Your task to perform on an android device: turn off improve location accuracy Image 0: 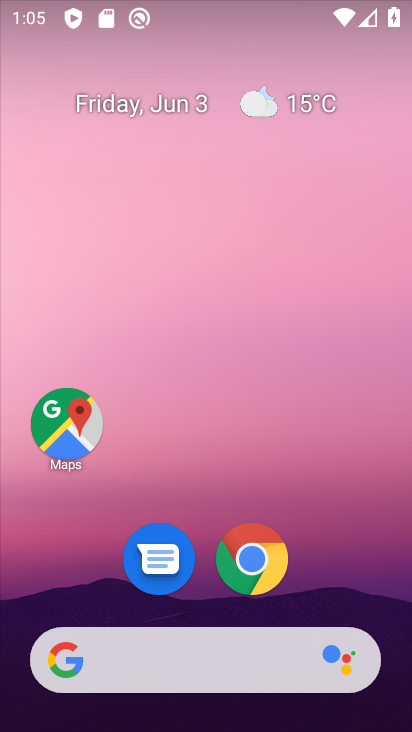
Step 0: drag from (64, 581) to (232, 133)
Your task to perform on an android device: turn off improve location accuracy Image 1: 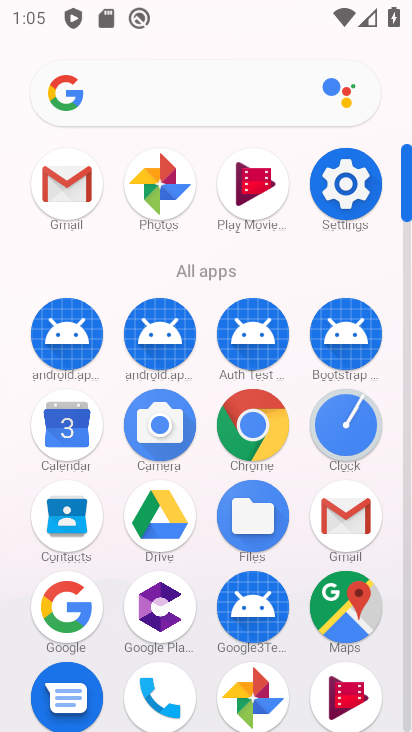
Step 1: drag from (160, 612) to (300, 232)
Your task to perform on an android device: turn off improve location accuracy Image 2: 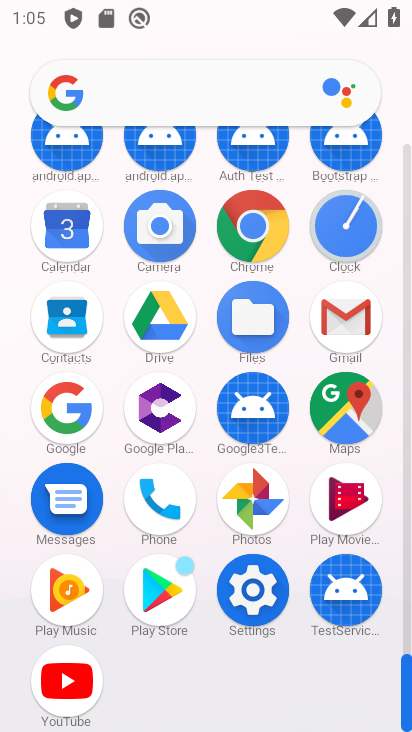
Step 2: click (245, 596)
Your task to perform on an android device: turn off improve location accuracy Image 3: 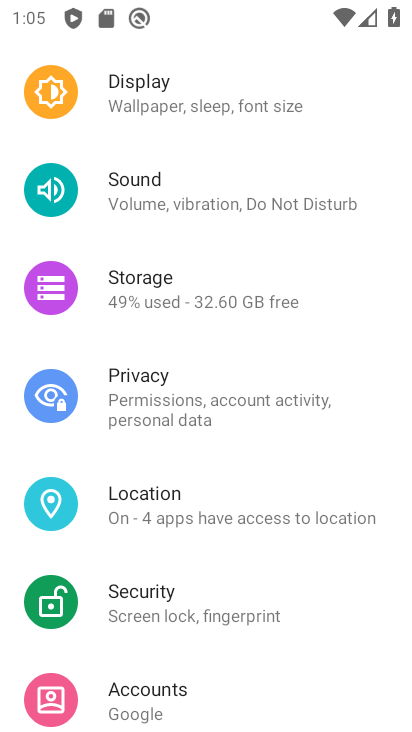
Step 3: click (179, 510)
Your task to perform on an android device: turn off improve location accuracy Image 4: 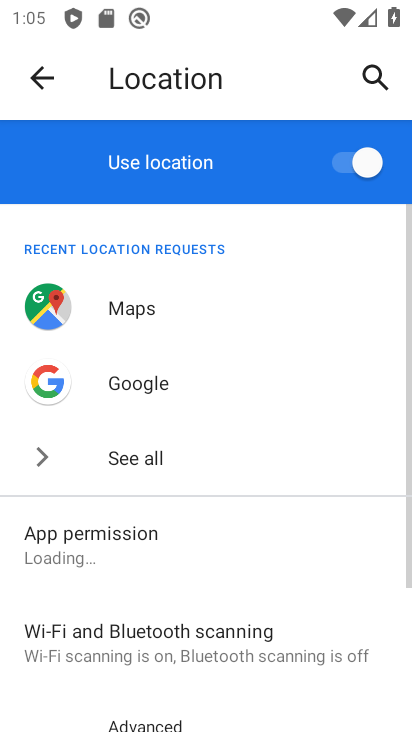
Step 4: drag from (205, 584) to (309, 324)
Your task to perform on an android device: turn off improve location accuracy Image 5: 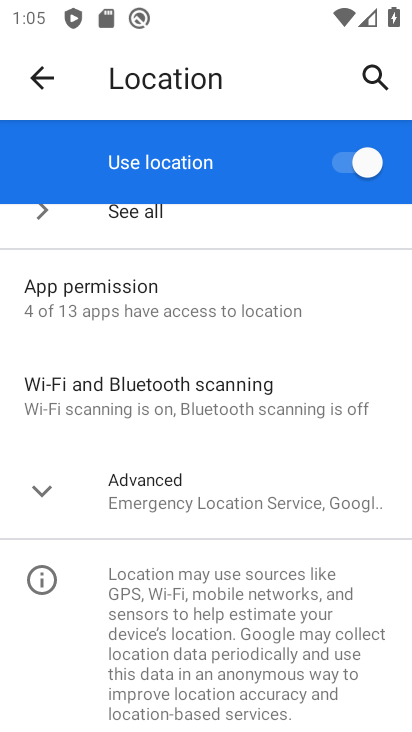
Step 5: click (221, 500)
Your task to perform on an android device: turn off improve location accuracy Image 6: 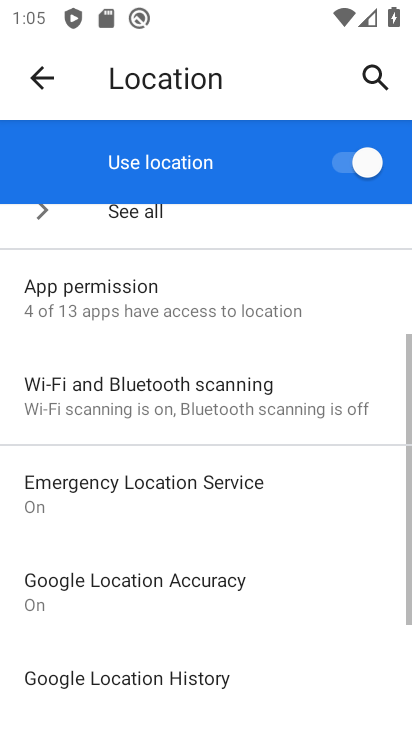
Step 6: drag from (226, 559) to (295, 363)
Your task to perform on an android device: turn off improve location accuracy Image 7: 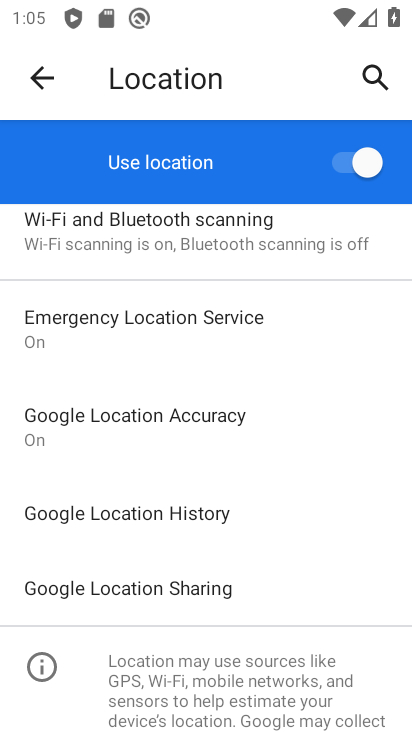
Step 7: click (197, 437)
Your task to perform on an android device: turn off improve location accuracy Image 8: 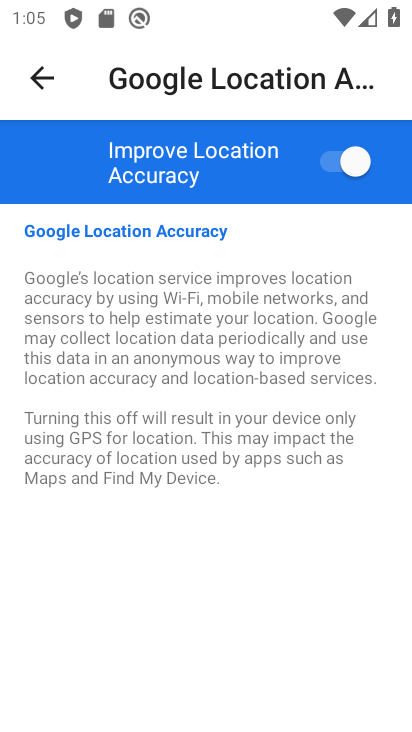
Step 8: click (344, 159)
Your task to perform on an android device: turn off improve location accuracy Image 9: 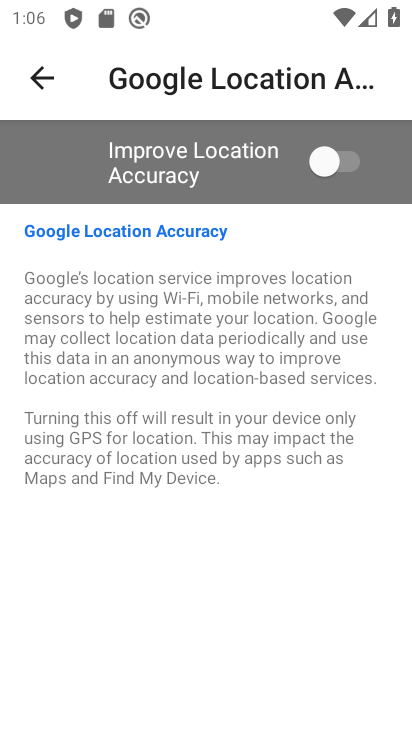
Step 9: task complete